Your task to perform on an android device: empty trash in google photos Image 0: 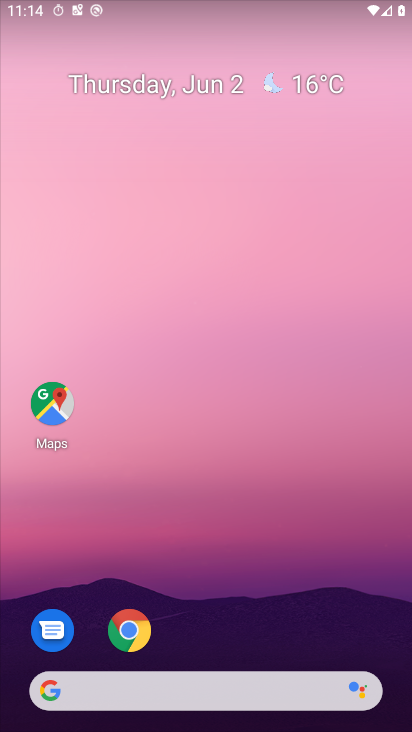
Step 0: drag from (266, 666) to (312, 210)
Your task to perform on an android device: empty trash in google photos Image 1: 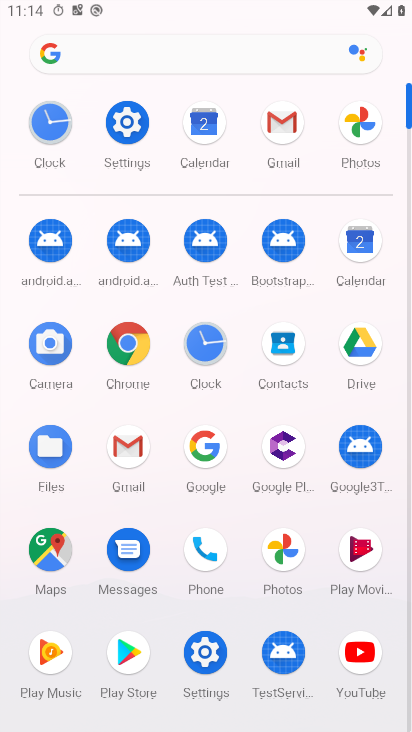
Step 1: click (278, 553)
Your task to perform on an android device: empty trash in google photos Image 2: 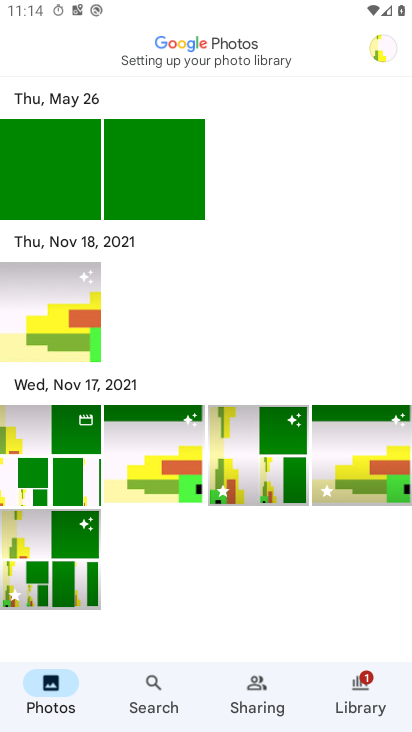
Step 2: click (372, 680)
Your task to perform on an android device: empty trash in google photos Image 3: 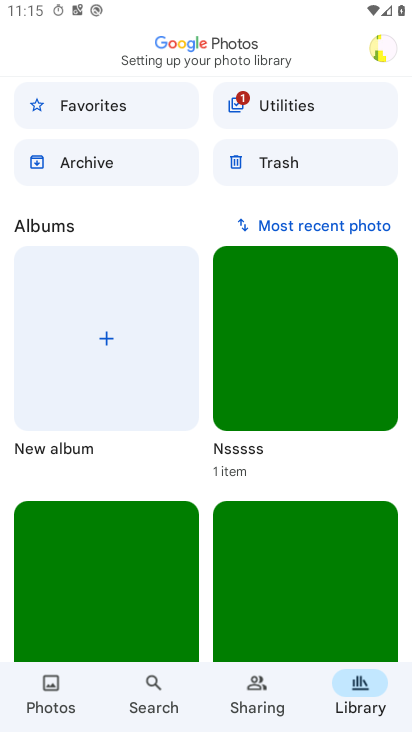
Step 3: click (320, 188)
Your task to perform on an android device: empty trash in google photos Image 4: 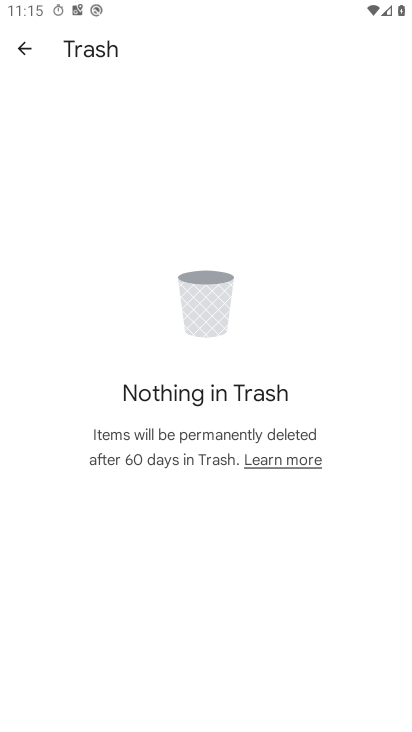
Step 4: task complete